Your task to perform on an android device: What's on my calendar tomorrow? Image 0: 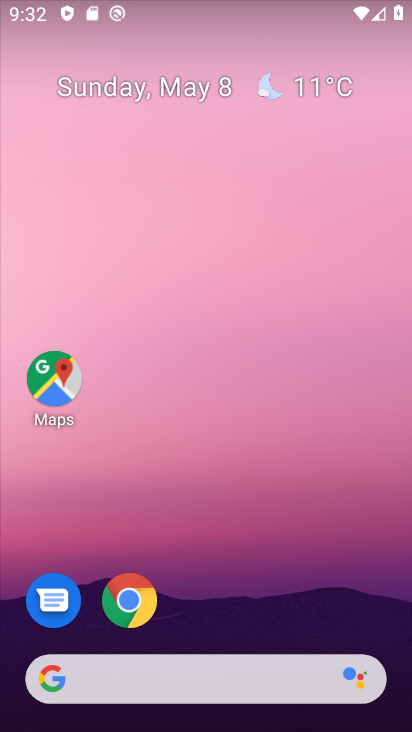
Step 0: drag from (334, 613) to (277, 24)
Your task to perform on an android device: What's on my calendar tomorrow? Image 1: 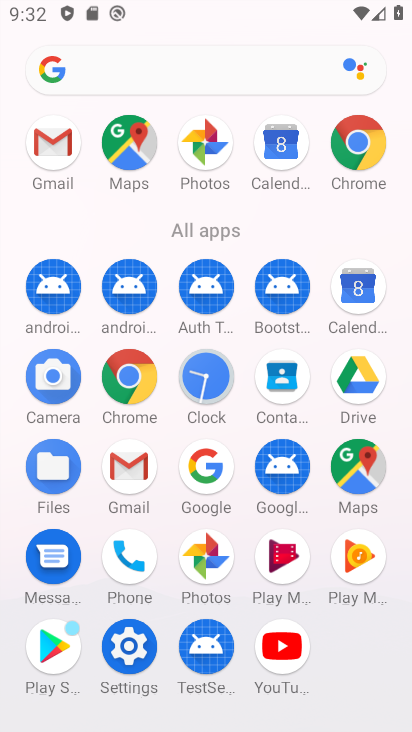
Step 1: drag from (14, 562) to (21, 199)
Your task to perform on an android device: What's on my calendar tomorrow? Image 2: 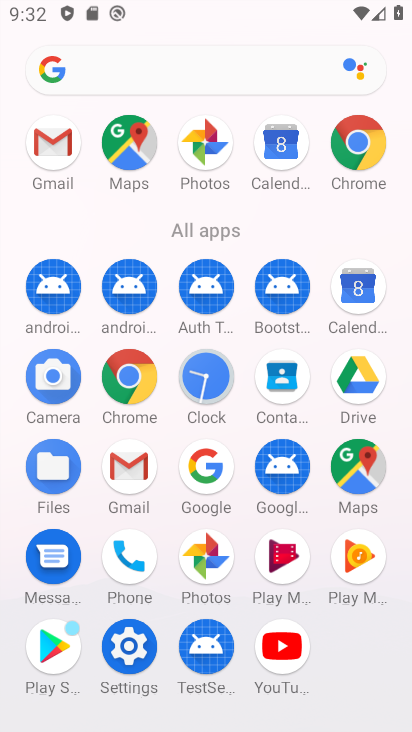
Step 2: click (353, 281)
Your task to perform on an android device: What's on my calendar tomorrow? Image 3: 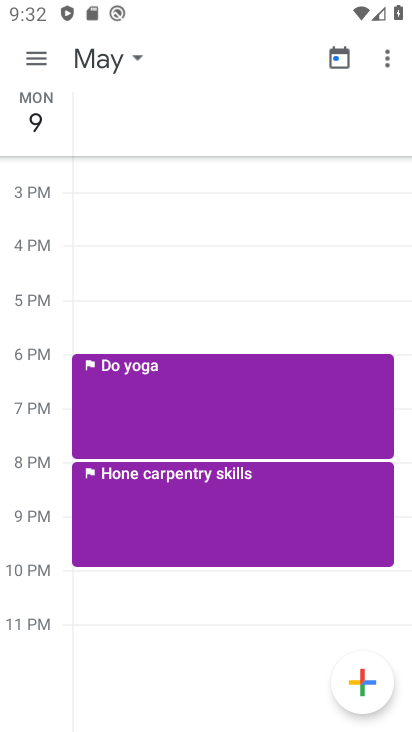
Step 3: task complete